Your task to perform on an android device: delete a single message in the gmail app Image 0: 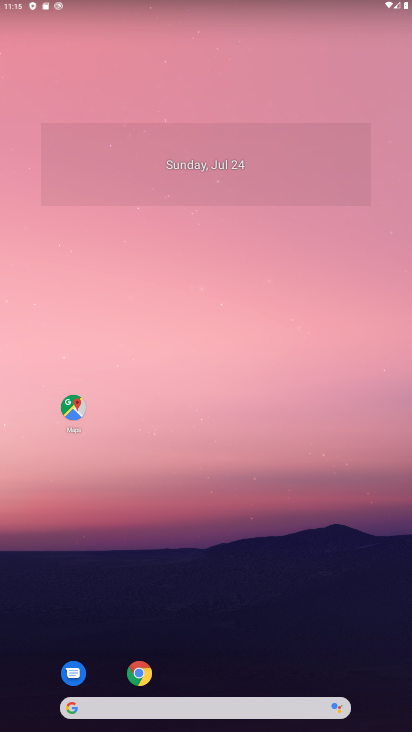
Step 0: press home button
Your task to perform on an android device: delete a single message in the gmail app Image 1: 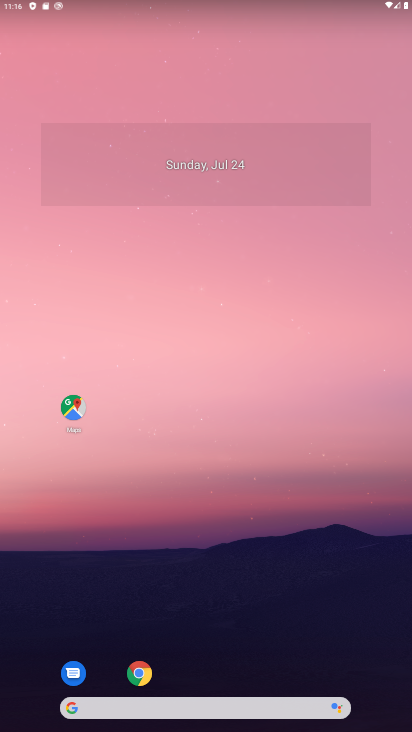
Step 1: click (208, 34)
Your task to perform on an android device: delete a single message in the gmail app Image 2: 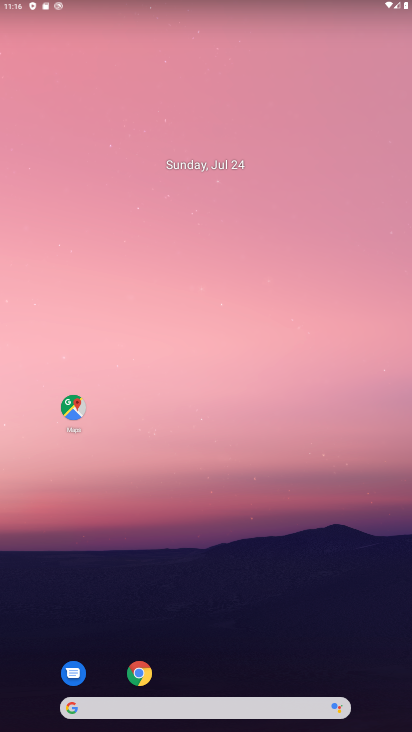
Step 2: press home button
Your task to perform on an android device: delete a single message in the gmail app Image 3: 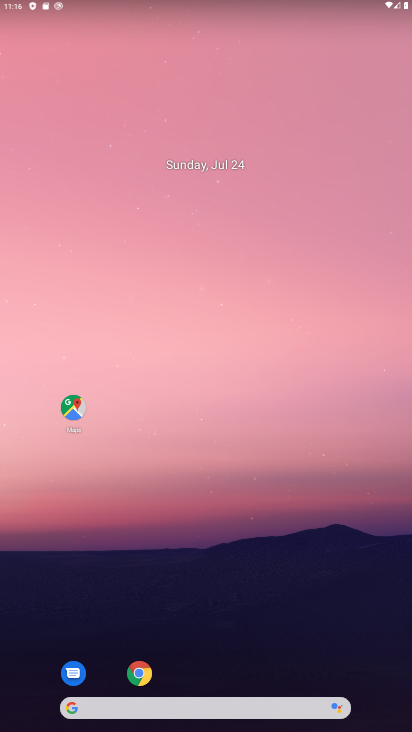
Step 3: drag from (237, 666) to (270, 63)
Your task to perform on an android device: delete a single message in the gmail app Image 4: 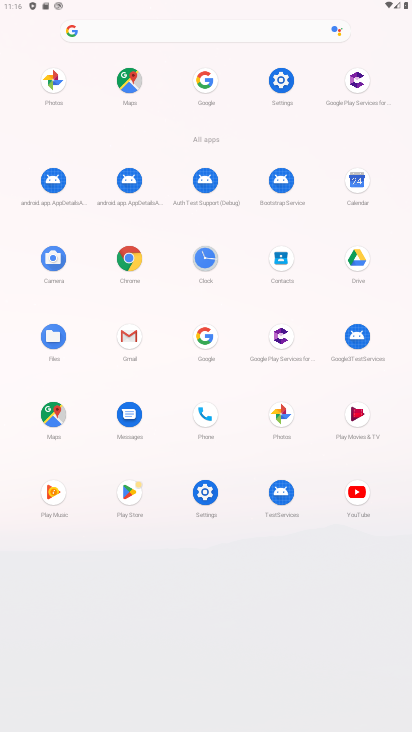
Step 4: click (125, 337)
Your task to perform on an android device: delete a single message in the gmail app Image 5: 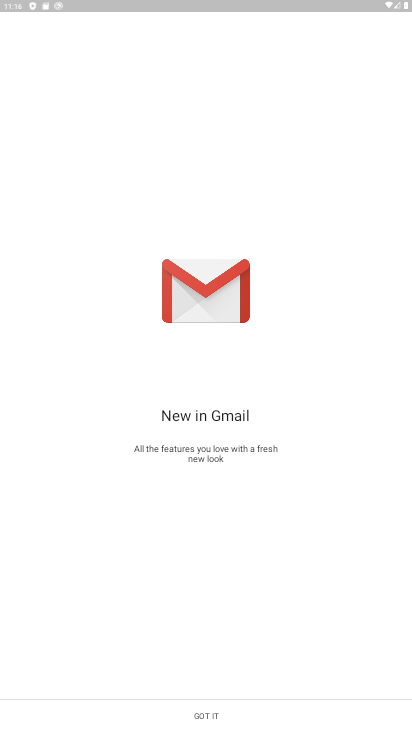
Step 5: click (204, 715)
Your task to perform on an android device: delete a single message in the gmail app Image 6: 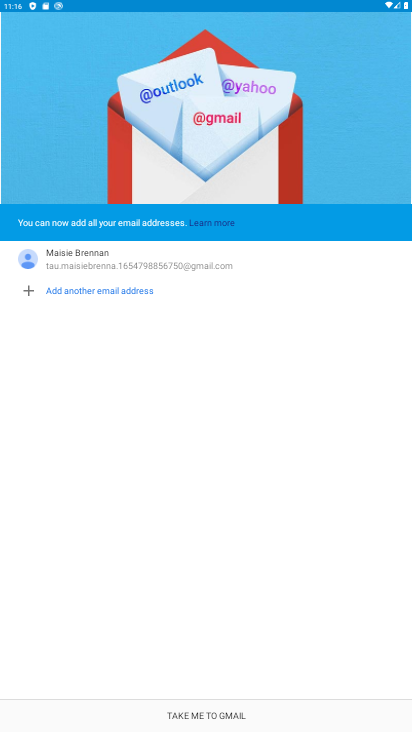
Step 6: click (211, 720)
Your task to perform on an android device: delete a single message in the gmail app Image 7: 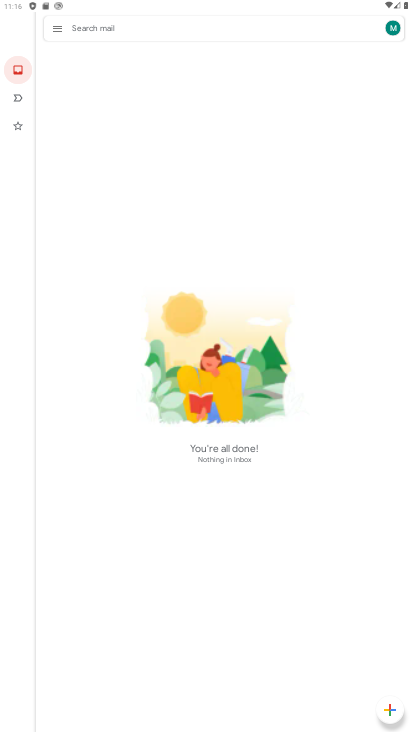
Step 7: click (52, 25)
Your task to perform on an android device: delete a single message in the gmail app Image 8: 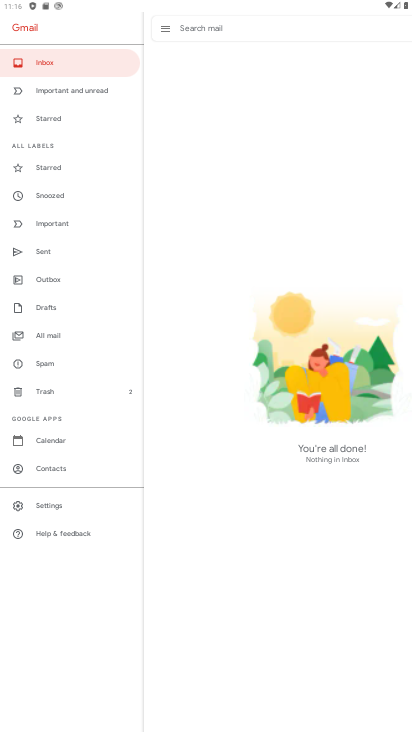
Step 8: click (54, 335)
Your task to perform on an android device: delete a single message in the gmail app Image 9: 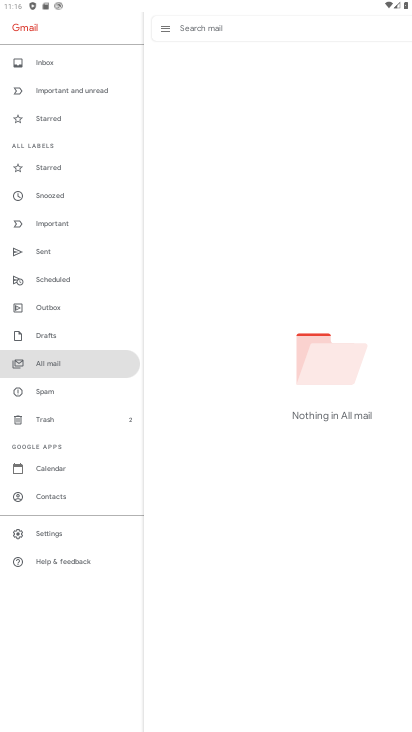
Step 9: task complete